Your task to perform on an android device: Clear all items from cart on walmart. Add "asus rog" to the cart on walmart, then select checkout. Image 0: 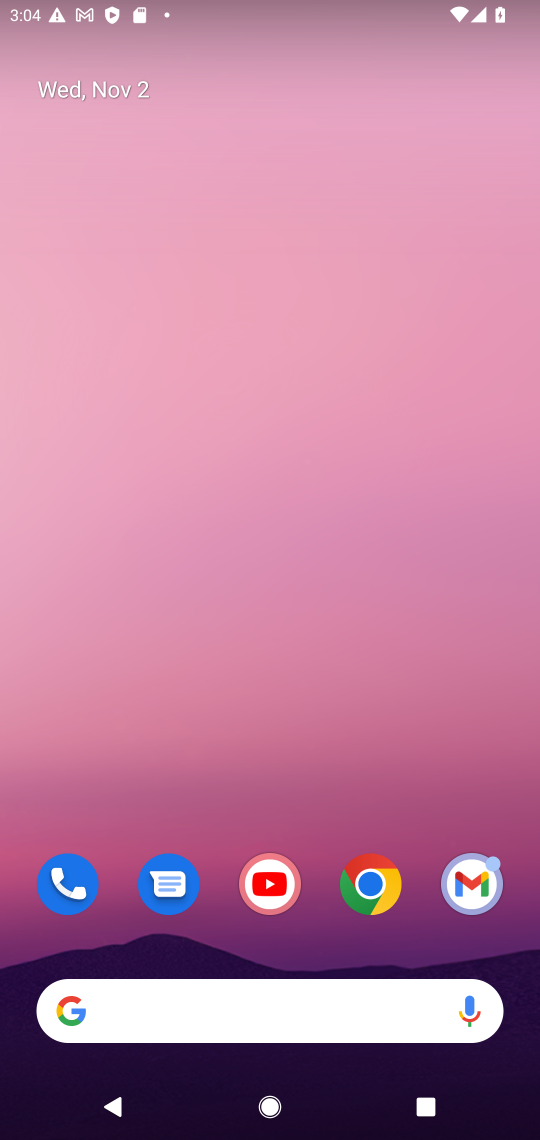
Step 0: click (367, 882)
Your task to perform on an android device: Clear all items from cart on walmart. Add "asus rog" to the cart on walmart, then select checkout. Image 1: 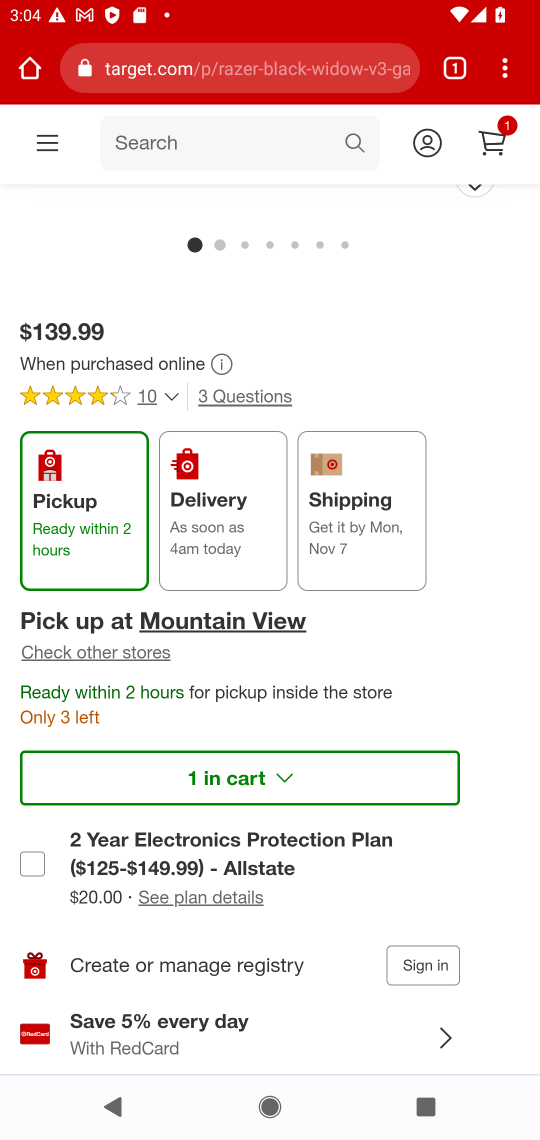
Step 1: click (302, 64)
Your task to perform on an android device: Clear all items from cart on walmart. Add "asus rog" to the cart on walmart, then select checkout. Image 2: 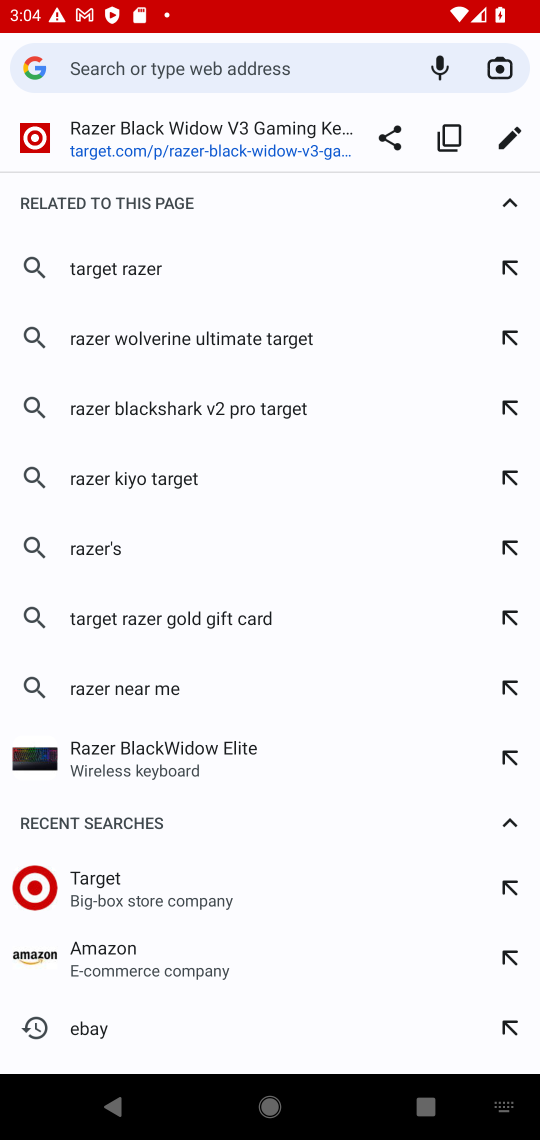
Step 2: type "walmart"
Your task to perform on an android device: Clear all items from cart on walmart. Add "asus rog" to the cart on walmart, then select checkout. Image 3: 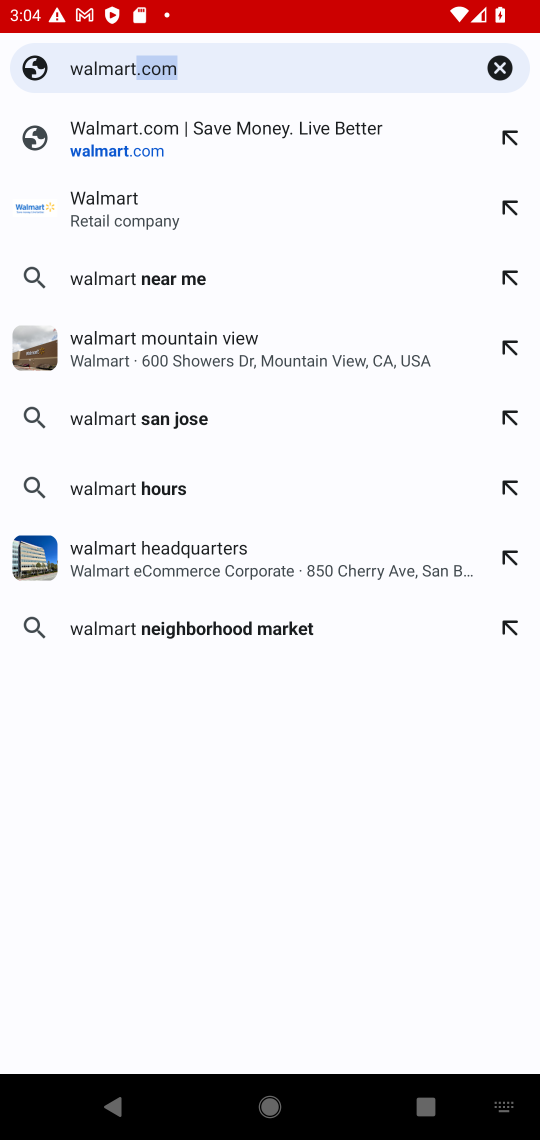
Step 3: click (95, 199)
Your task to perform on an android device: Clear all items from cart on walmart. Add "asus rog" to the cart on walmart, then select checkout. Image 4: 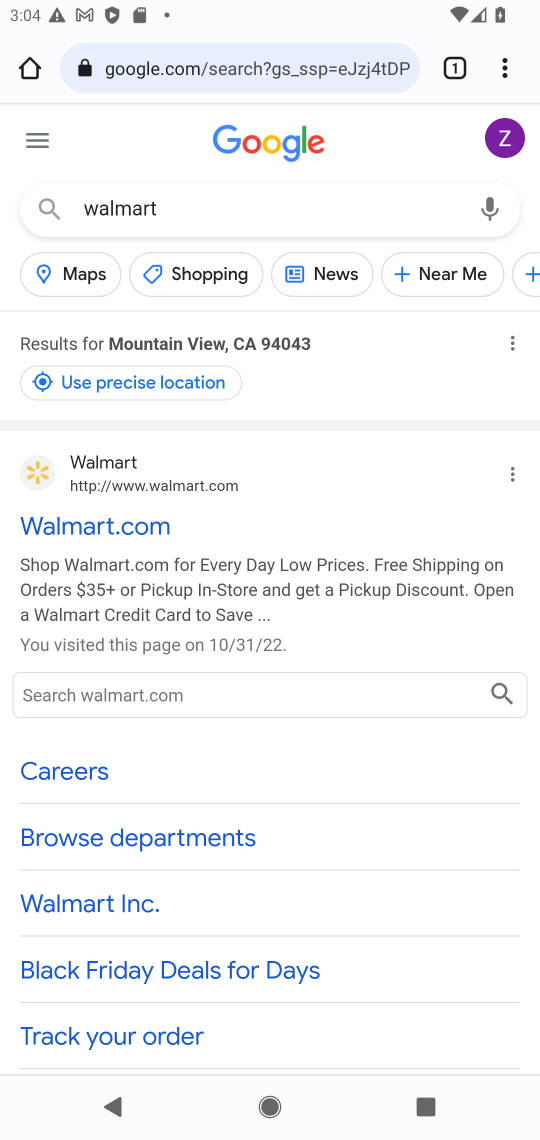
Step 4: click (82, 531)
Your task to perform on an android device: Clear all items from cart on walmart. Add "asus rog" to the cart on walmart, then select checkout. Image 5: 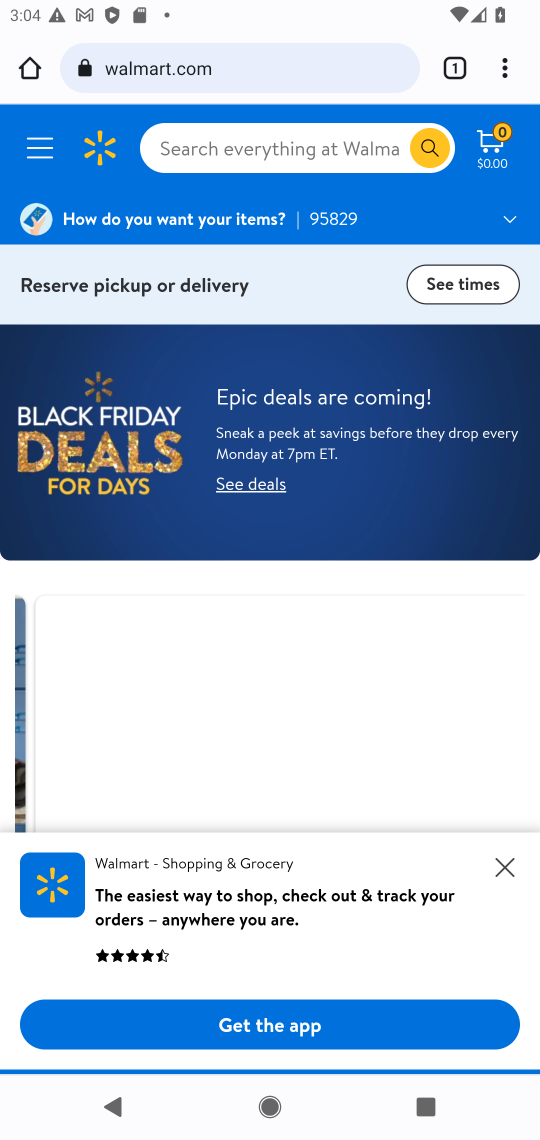
Step 5: click (485, 141)
Your task to perform on an android device: Clear all items from cart on walmart. Add "asus rog" to the cart on walmart, then select checkout. Image 6: 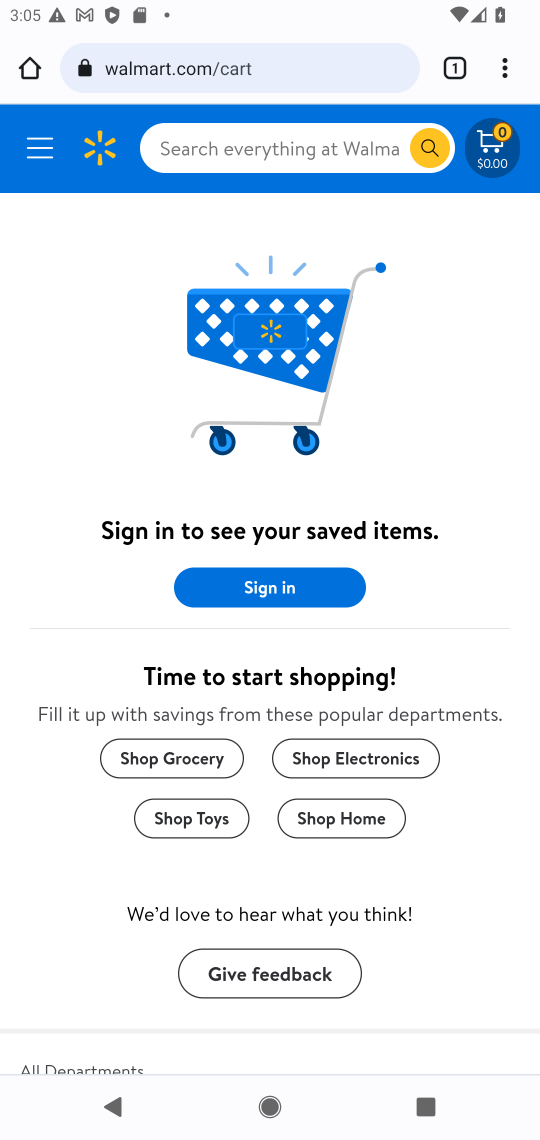
Step 6: click (211, 151)
Your task to perform on an android device: Clear all items from cart on walmart. Add "asus rog" to the cart on walmart, then select checkout. Image 7: 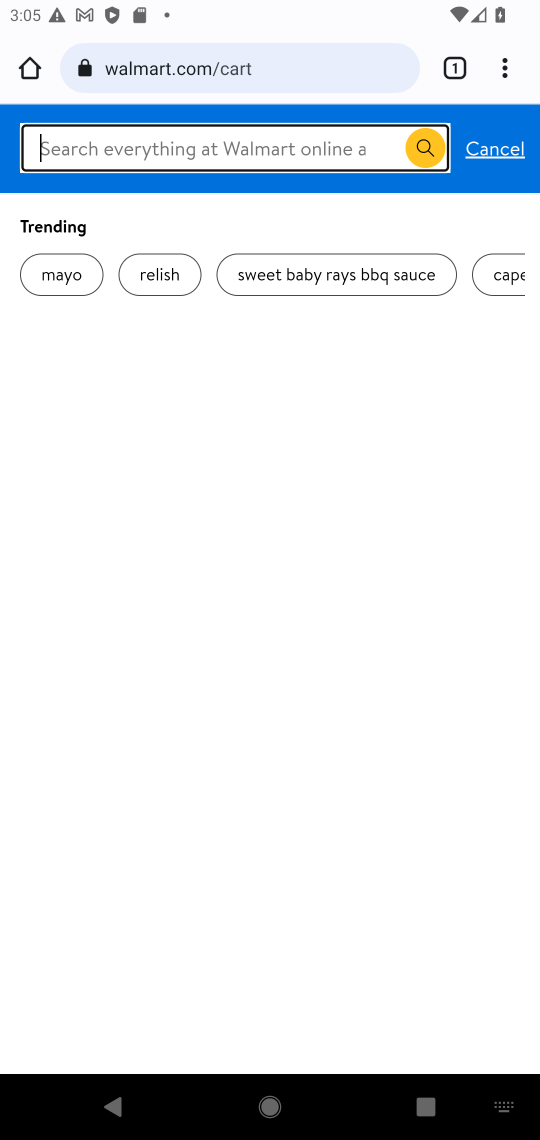
Step 7: type "asus rog"
Your task to perform on an android device: Clear all items from cart on walmart. Add "asus rog" to the cart on walmart, then select checkout. Image 8: 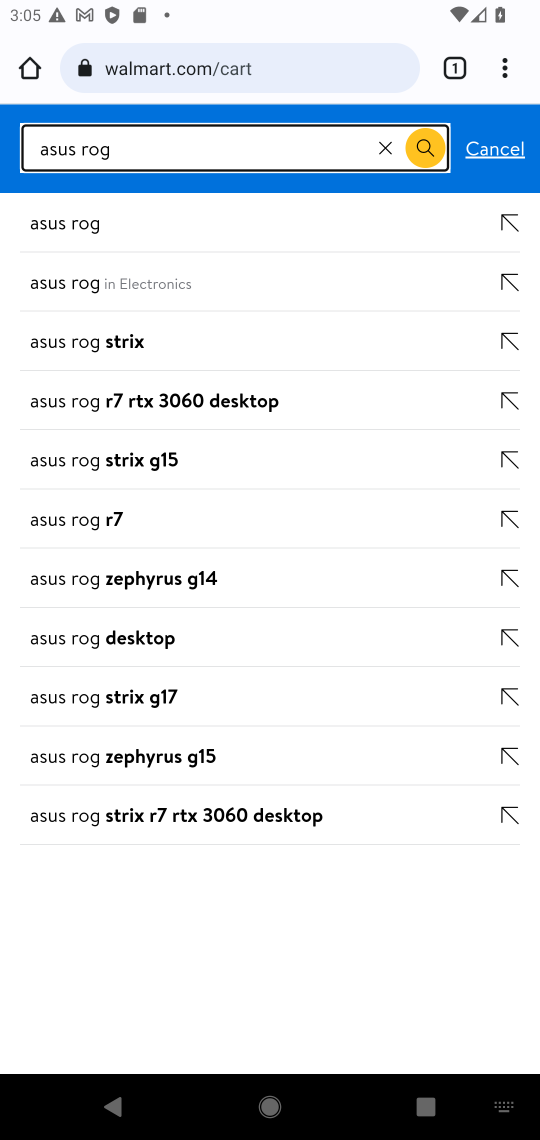
Step 8: click (65, 230)
Your task to perform on an android device: Clear all items from cart on walmart. Add "asus rog" to the cart on walmart, then select checkout. Image 9: 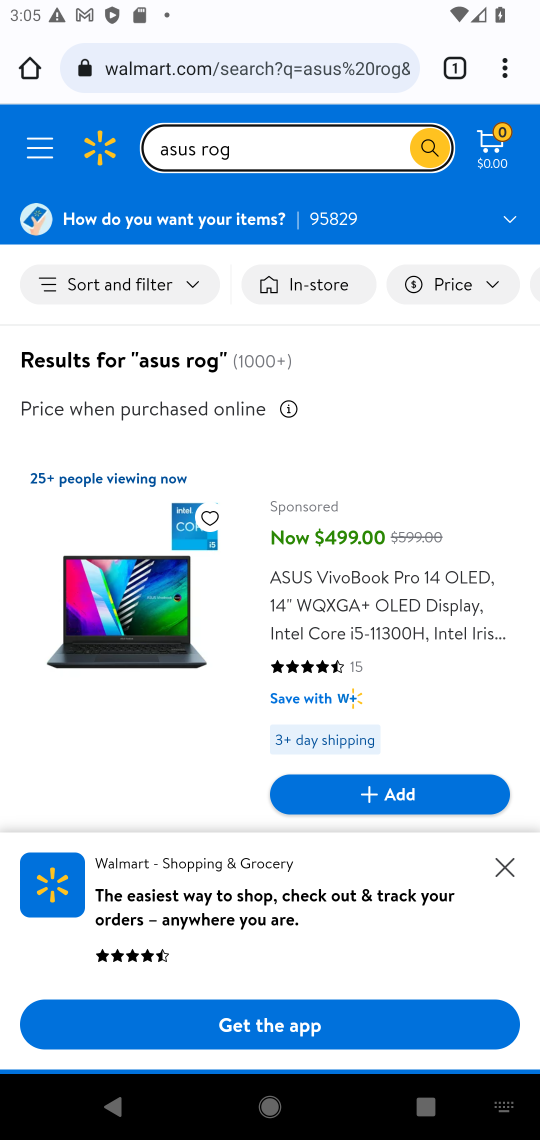
Step 9: click (503, 864)
Your task to perform on an android device: Clear all items from cart on walmart. Add "asus rog" to the cart on walmart, then select checkout. Image 10: 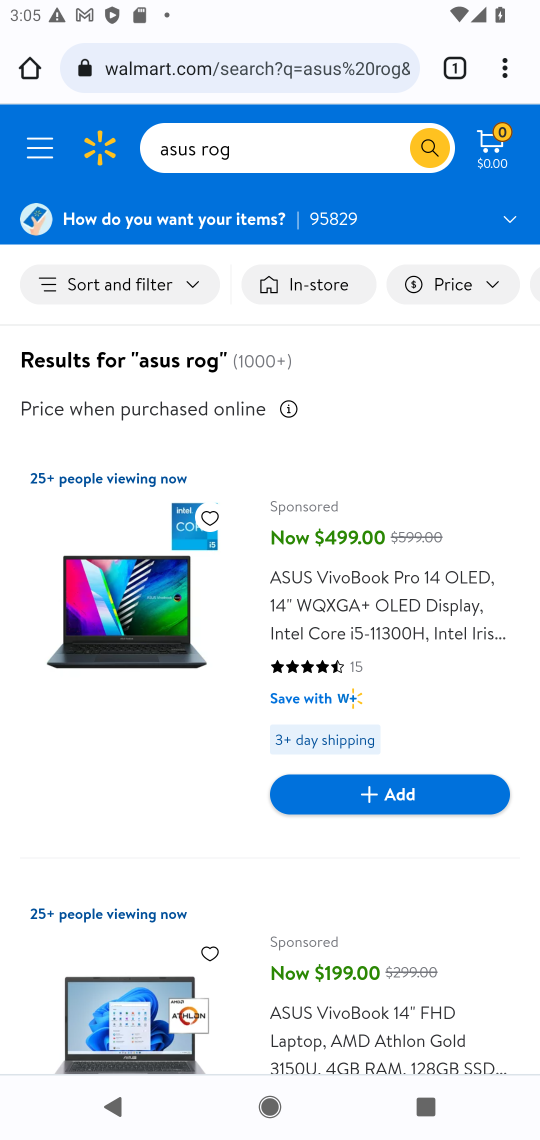
Step 10: click (366, 790)
Your task to perform on an android device: Clear all items from cart on walmart. Add "asus rog" to the cart on walmart, then select checkout. Image 11: 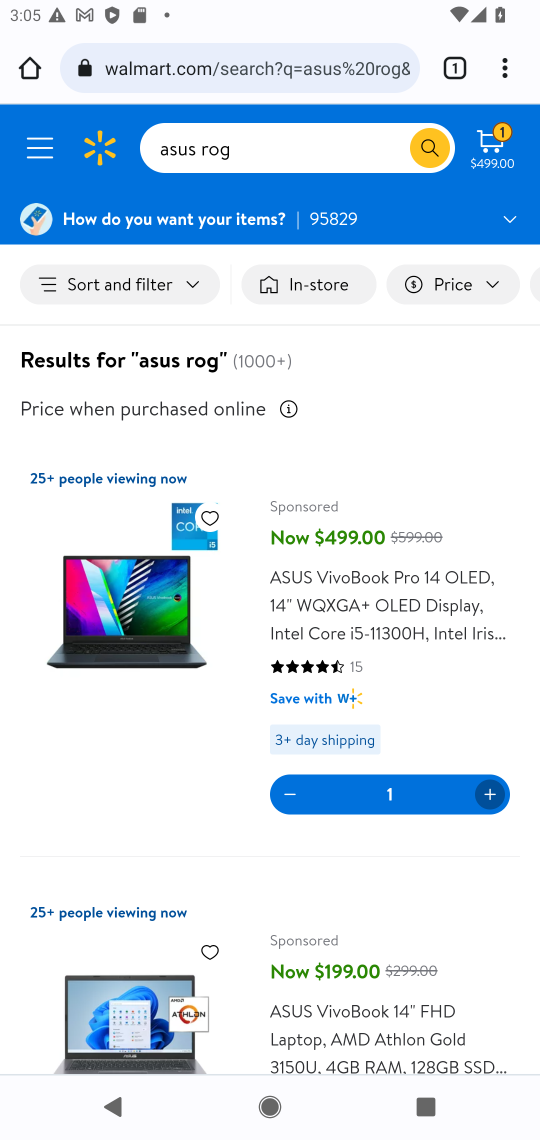
Step 11: click (499, 140)
Your task to perform on an android device: Clear all items from cart on walmart. Add "asus rog" to the cart on walmart, then select checkout. Image 12: 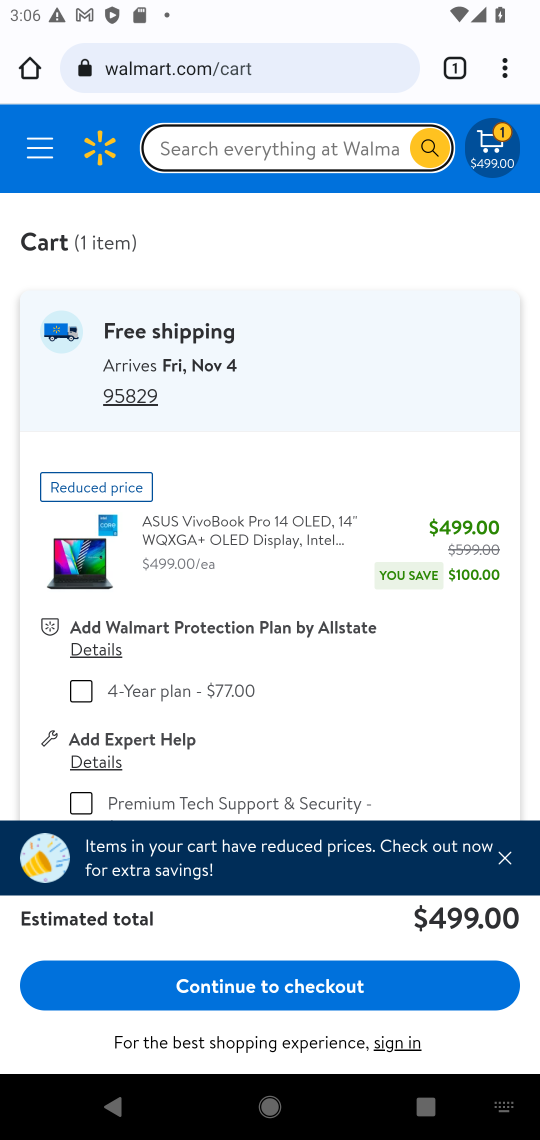
Step 12: click (261, 992)
Your task to perform on an android device: Clear all items from cart on walmart. Add "asus rog" to the cart on walmart, then select checkout. Image 13: 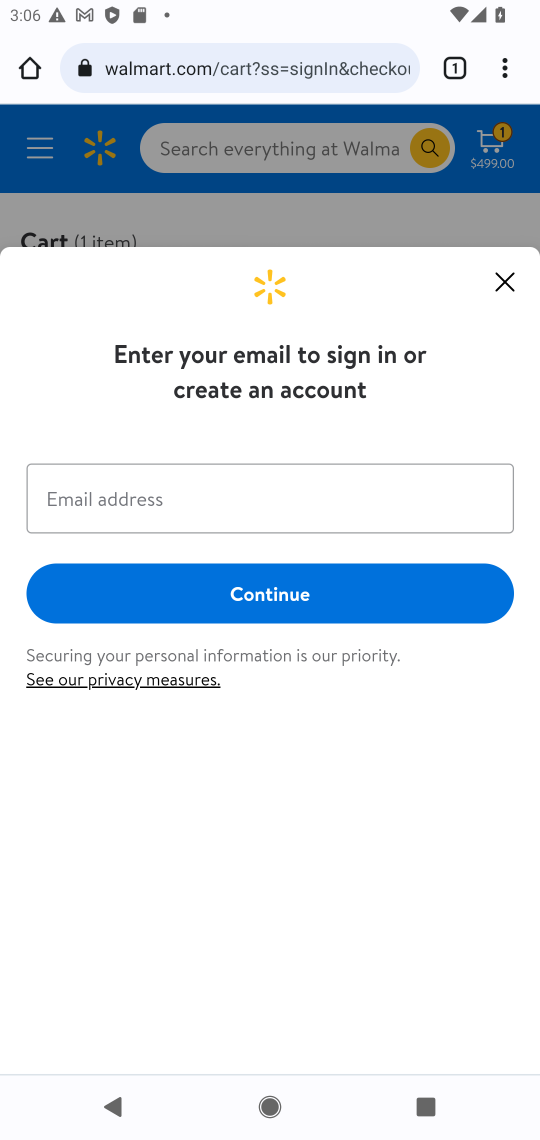
Step 13: task complete